Your task to perform on an android device: What is the recent news? Image 0: 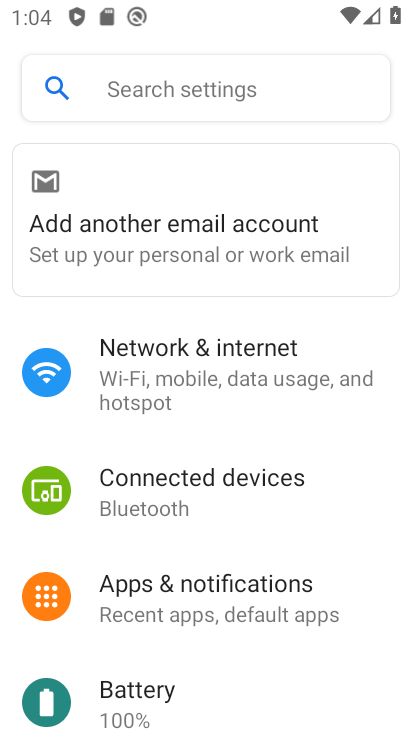
Step 0: press back button
Your task to perform on an android device: What is the recent news? Image 1: 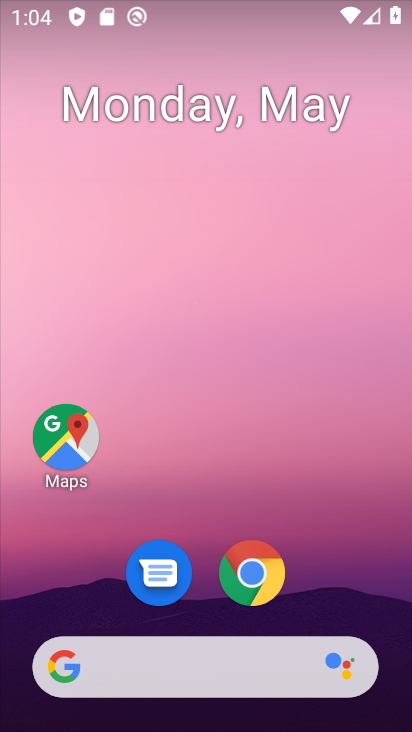
Step 1: drag from (316, 557) to (263, 76)
Your task to perform on an android device: What is the recent news? Image 2: 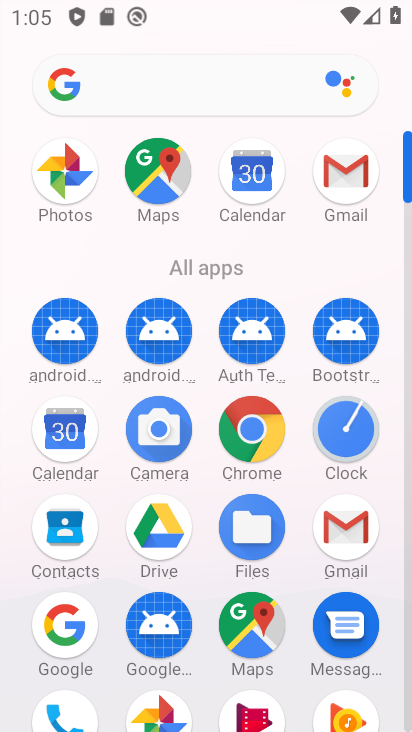
Step 2: click (60, 625)
Your task to perform on an android device: What is the recent news? Image 3: 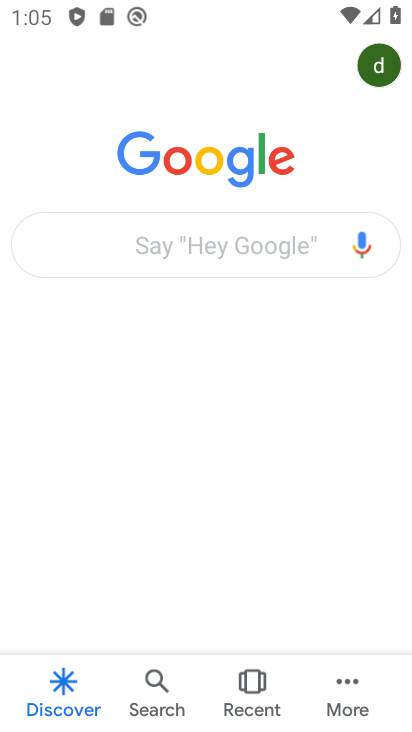
Step 3: click (161, 237)
Your task to perform on an android device: What is the recent news? Image 4: 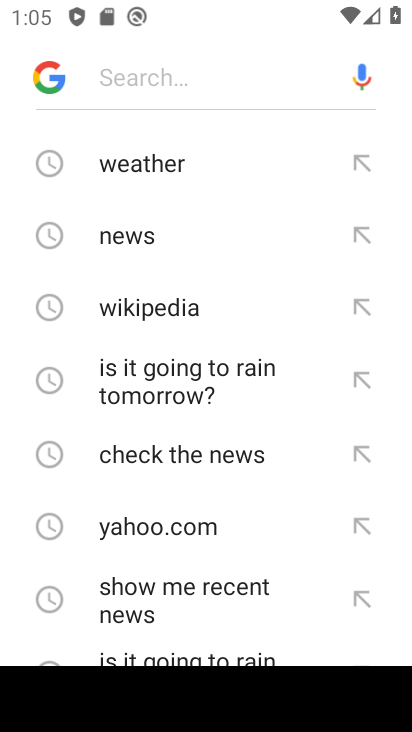
Step 4: type "recent news"
Your task to perform on an android device: What is the recent news? Image 5: 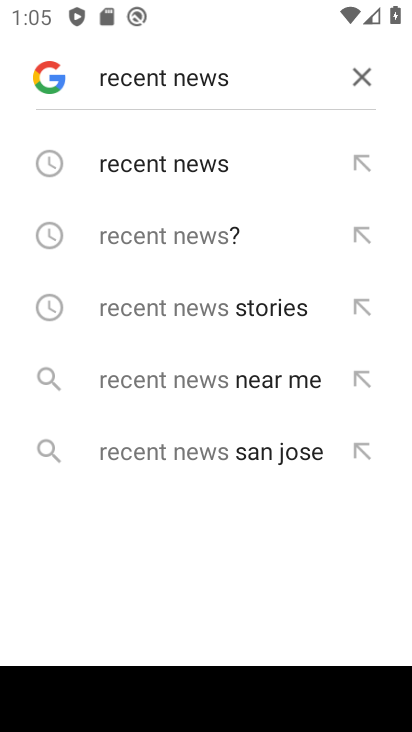
Step 5: click (167, 241)
Your task to perform on an android device: What is the recent news? Image 6: 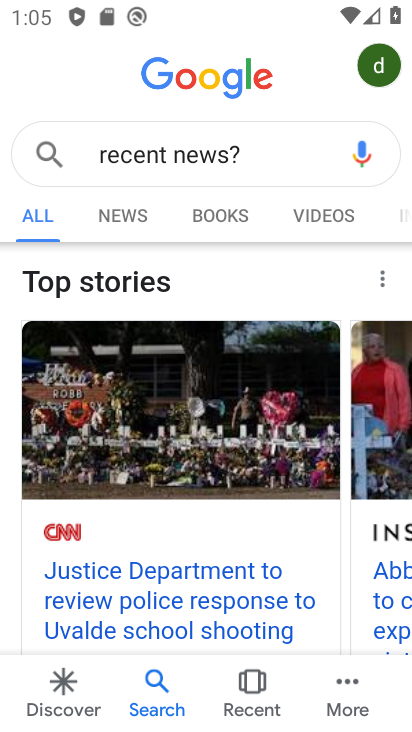
Step 6: click (154, 589)
Your task to perform on an android device: What is the recent news? Image 7: 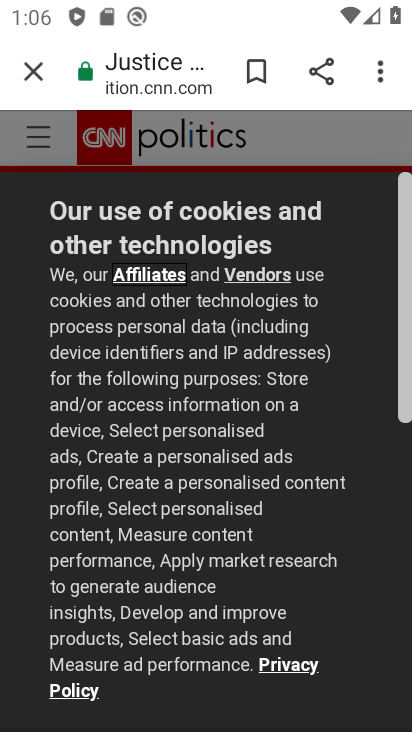
Step 7: task complete